Your task to perform on an android device: View the shopping cart on walmart.com. Search for "razer blackwidow" on walmart.com, select the first entry, add it to the cart, then select checkout. Image 0: 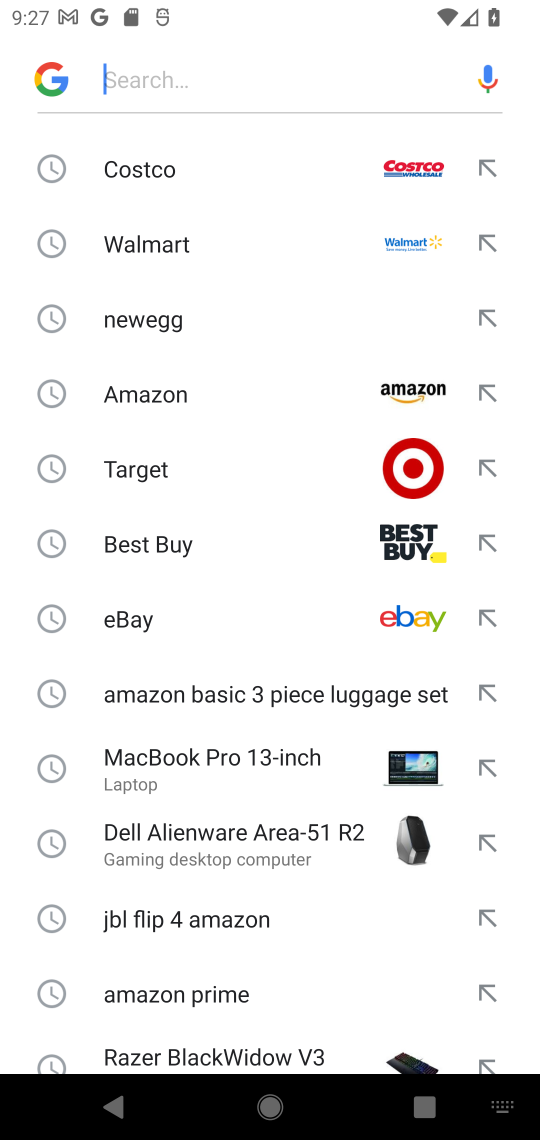
Step 0: press home button
Your task to perform on an android device: View the shopping cart on walmart.com. Search for "razer blackwidow" on walmart.com, select the first entry, add it to the cart, then select checkout. Image 1: 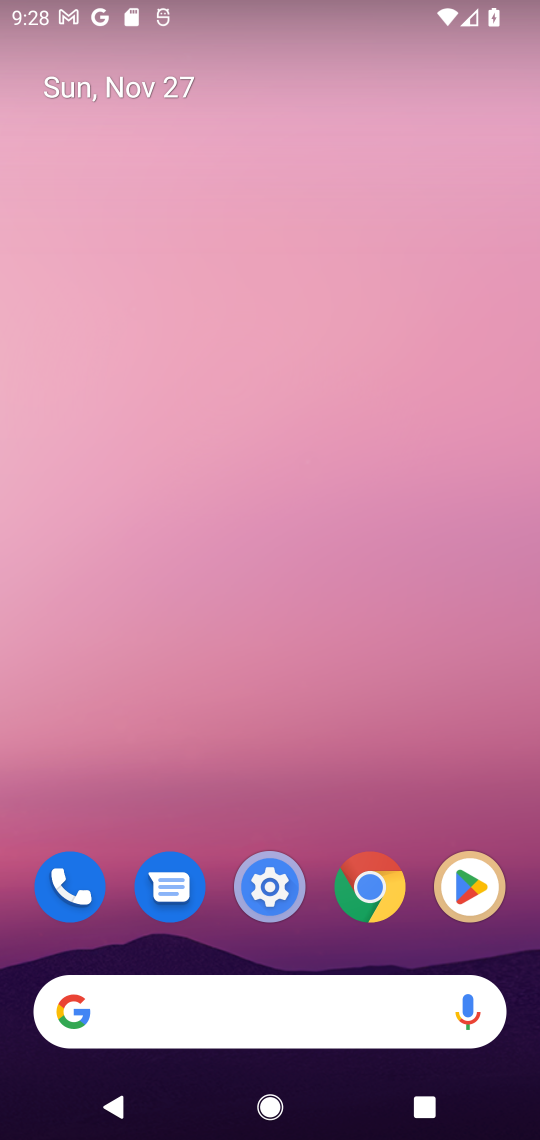
Step 1: click (222, 1024)
Your task to perform on an android device: View the shopping cart on walmart.com. Search for "razer blackwidow" on walmart.com, select the first entry, add it to the cart, then select checkout. Image 2: 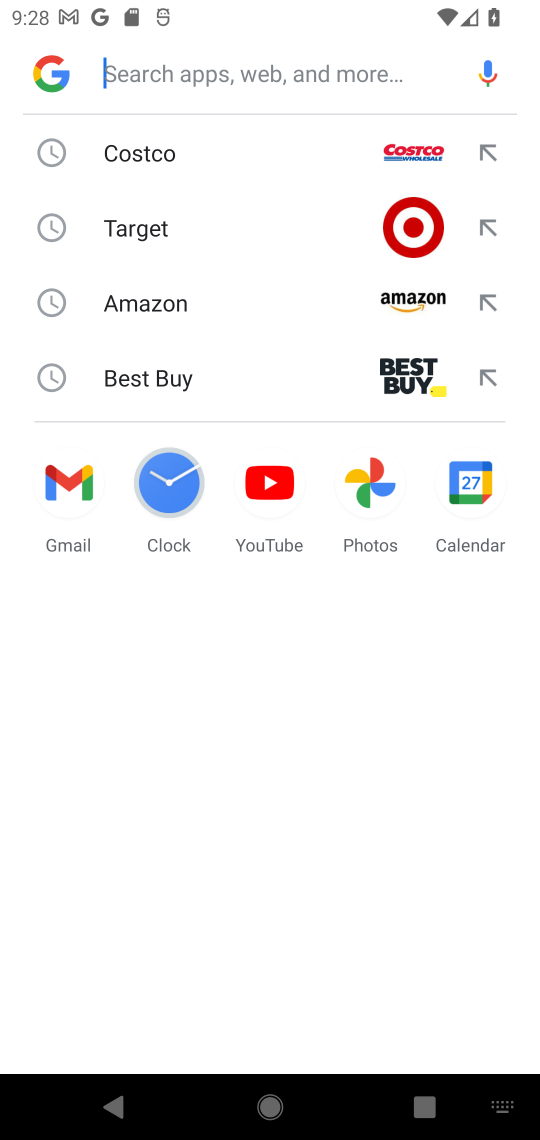
Step 2: type "walmart"
Your task to perform on an android device: View the shopping cart on walmart.com. Search for "razer blackwidow" on walmart.com, select the first entry, add it to the cart, then select checkout. Image 3: 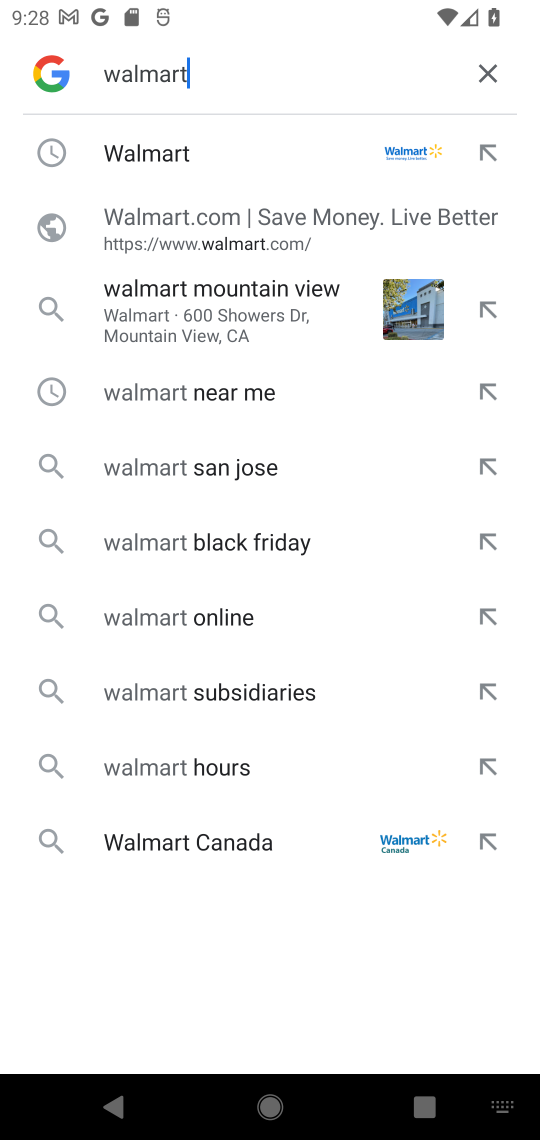
Step 3: click (200, 168)
Your task to perform on an android device: View the shopping cart on walmart.com. Search for "razer blackwidow" on walmart.com, select the first entry, add it to the cart, then select checkout. Image 4: 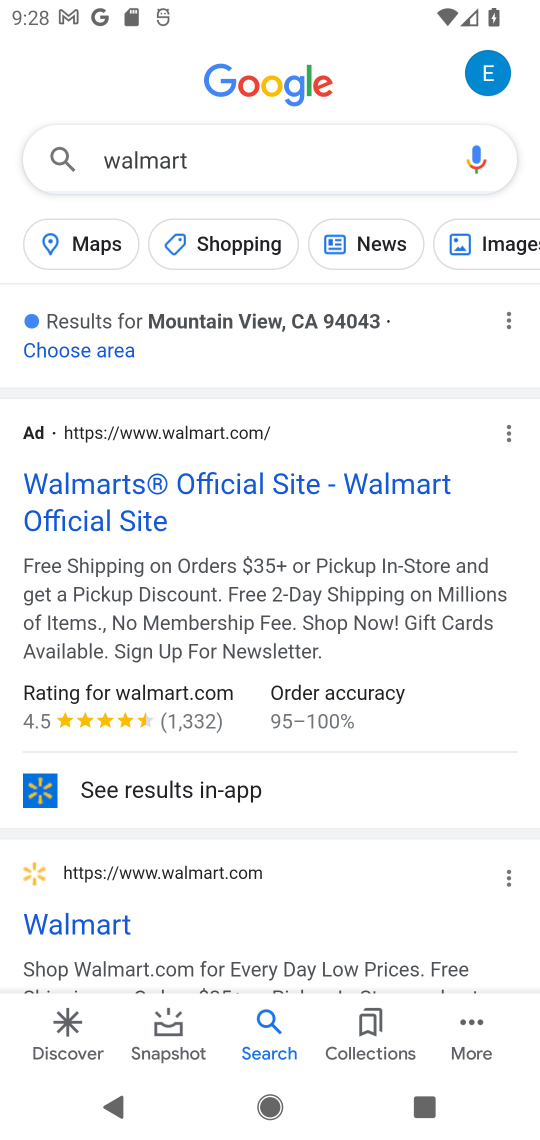
Step 4: click (326, 507)
Your task to perform on an android device: View the shopping cart on walmart.com. Search for "razer blackwidow" on walmart.com, select the first entry, add it to the cart, then select checkout. Image 5: 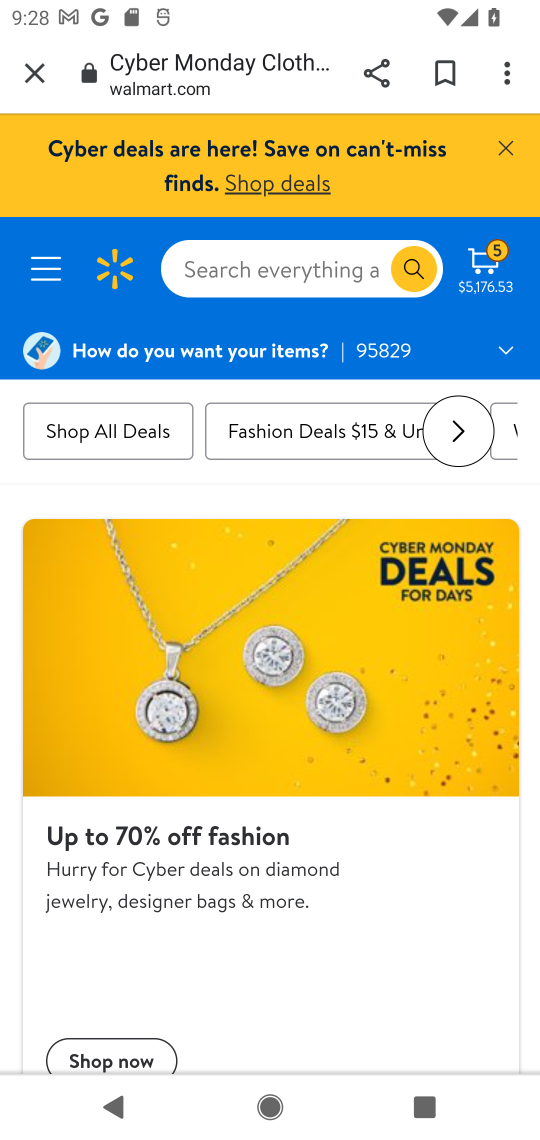
Step 5: click (264, 284)
Your task to perform on an android device: View the shopping cart on walmart.com. Search for "razer blackwidow" on walmart.com, select the first entry, add it to the cart, then select checkout. Image 6: 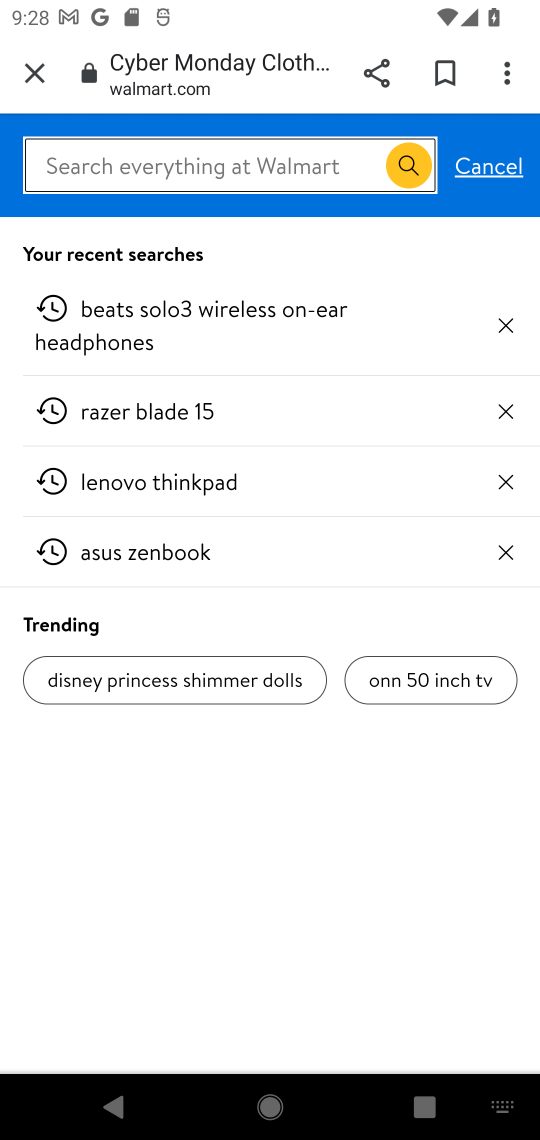
Step 6: type "razer blackwindow"
Your task to perform on an android device: View the shopping cart on walmart.com. Search for "razer blackwidow" on walmart.com, select the first entry, add it to the cart, then select checkout. Image 7: 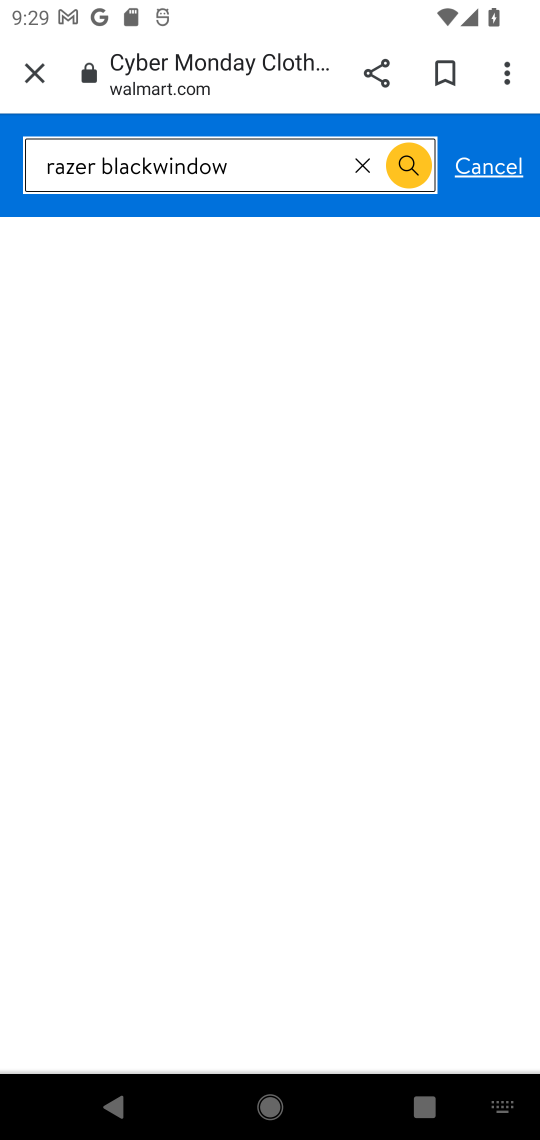
Step 7: click (294, 175)
Your task to perform on an android device: View the shopping cart on walmart.com. Search for "razer blackwidow" on walmart.com, select the first entry, add it to the cart, then select checkout. Image 8: 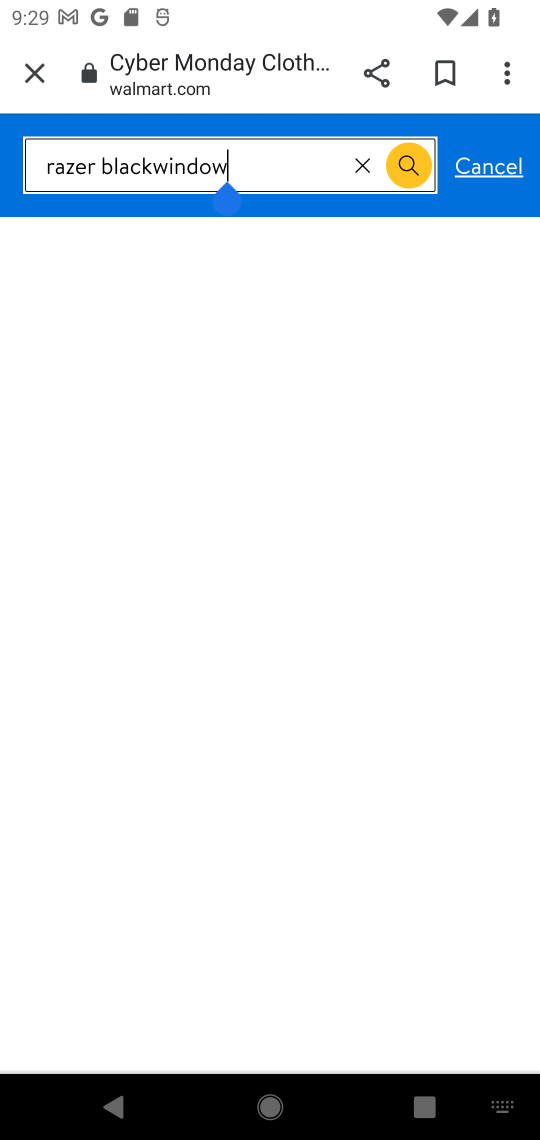
Step 8: click (410, 191)
Your task to perform on an android device: View the shopping cart on walmart.com. Search for "razer blackwidow" on walmart.com, select the first entry, add it to the cart, then select checkout. Image 9: 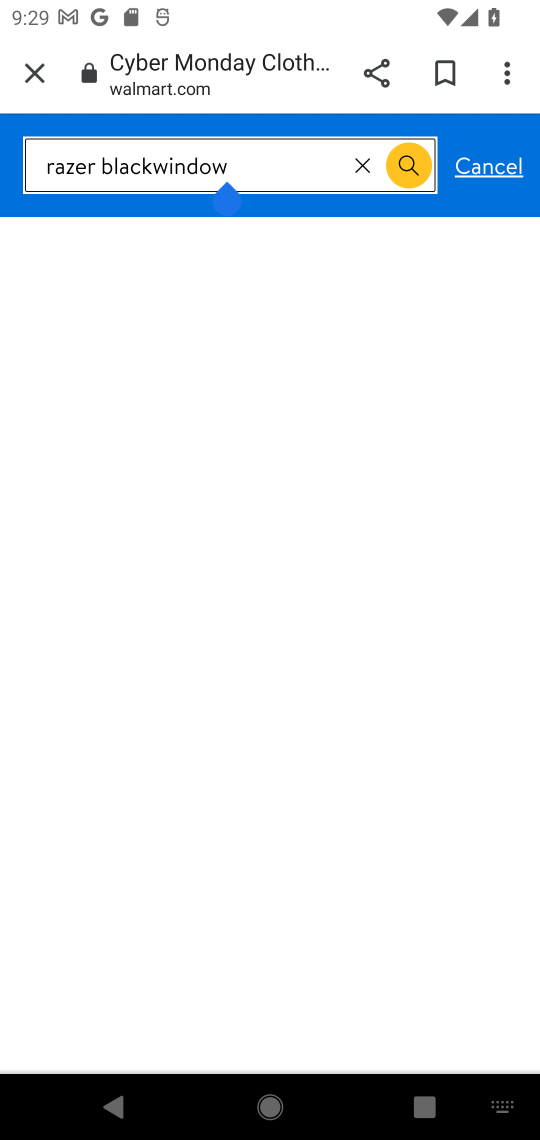
Step 9: click (407, 176)
Your task to perform on an android device: View the shopping cart on walmart.com. Search for "razer blackwidow" on walmart.com, select the first entry, add it to the cart, then select checkout. Image 10: 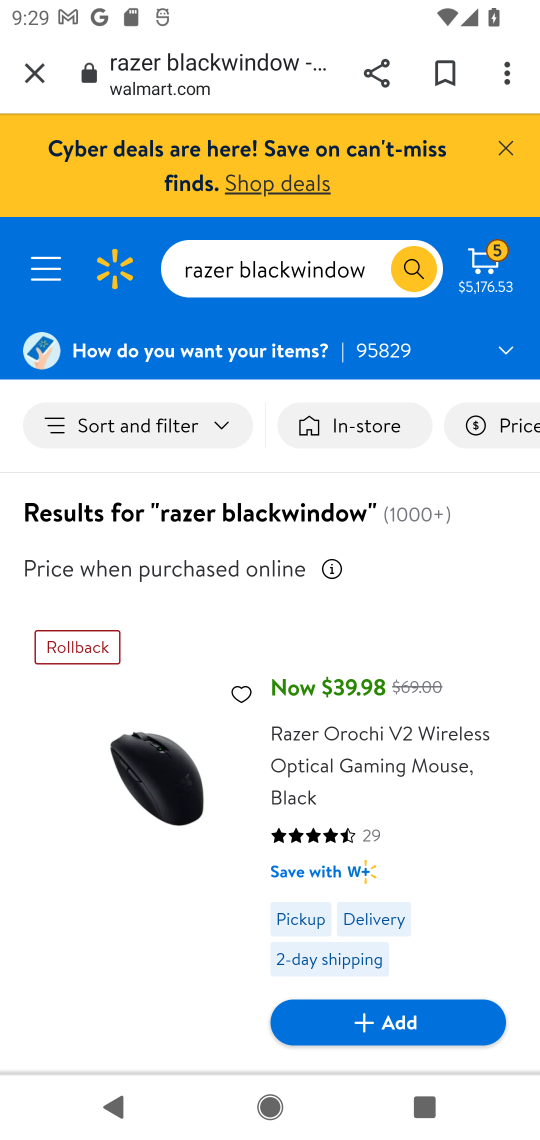
Step 10: click (408, 1017)
Your task to perform on an android device: View the shopping cart on walmart.com. Search for "razer blackwidow" on walmart.com, select the first entry, add it to the cart, then select checkout. Image 11: 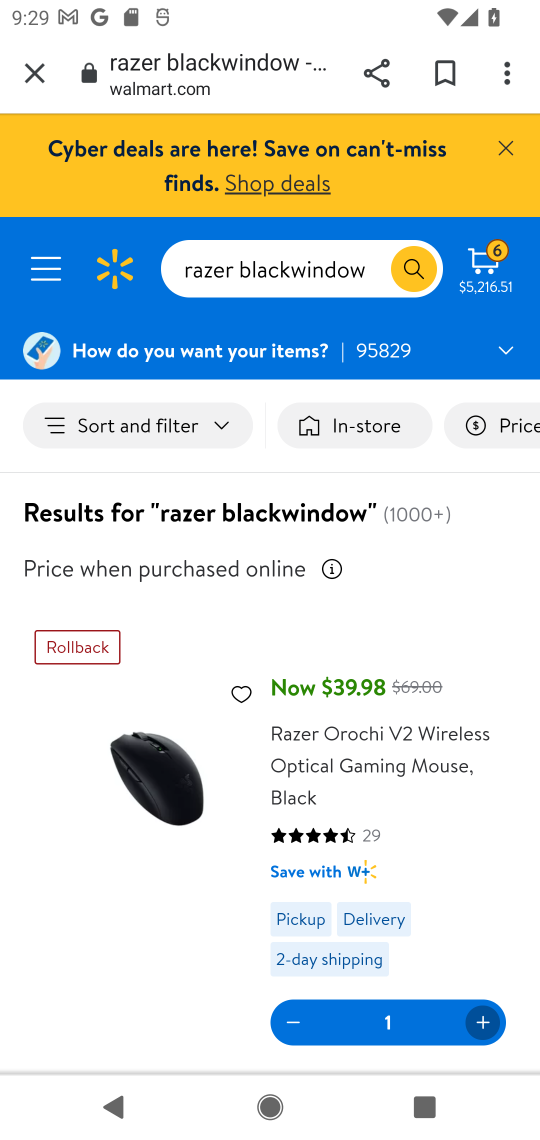
Step 11: task complete